Your task to perform on an android device: Open Wikipedia Image 0: 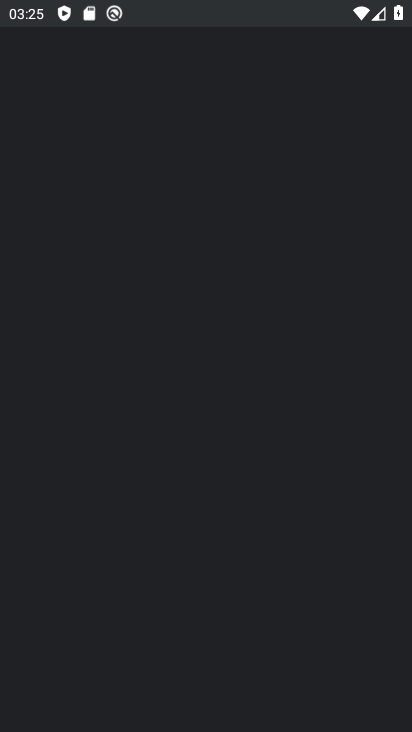
Step 0: drag from (364, 498) to (408, 450)
Your task to perform on an android device: Open Wikipedia Image 1: 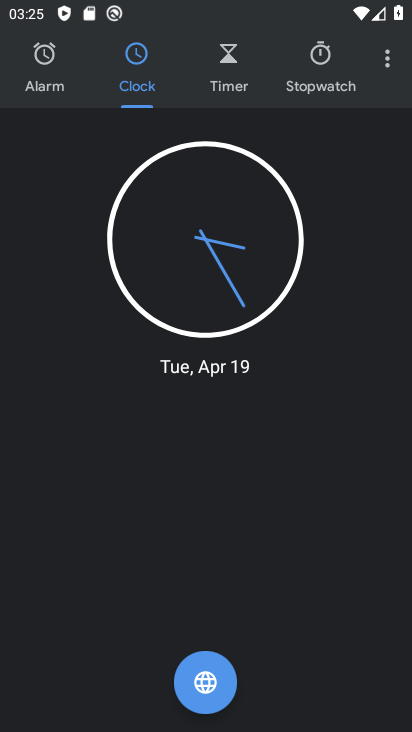
Step 1: press home button
Your task to perform on an android device: Open Wikipedia Image 2: 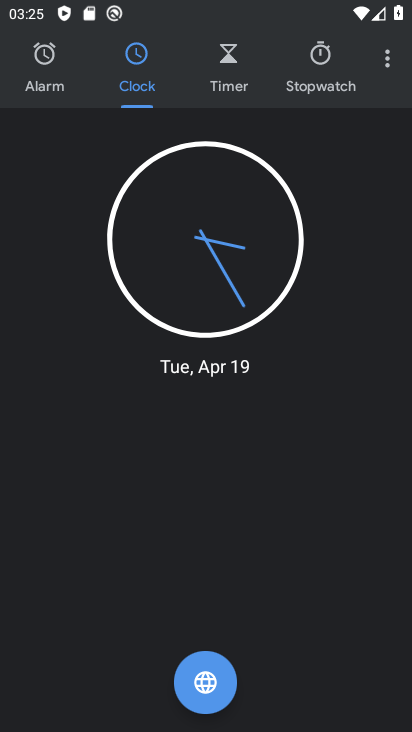
Step 2: drag from (408, 450) to (407, 631)
Your task to perform on an android device: Open Wikipedia Image 3: 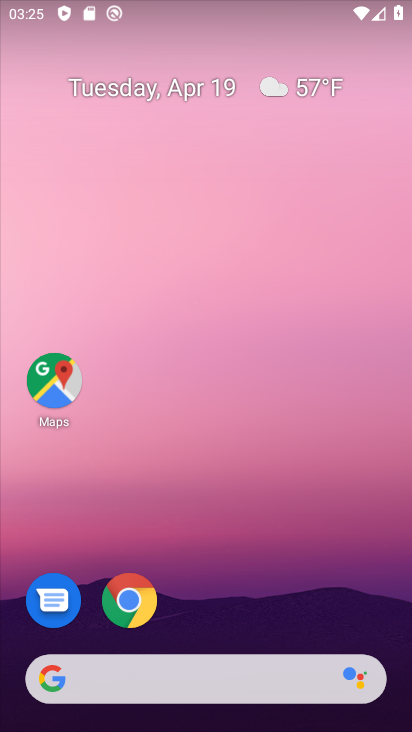
Step 3: drag from (304, 616) to (279, 230)
Your task to perform on an android device: Open Wikipedia Image 4: 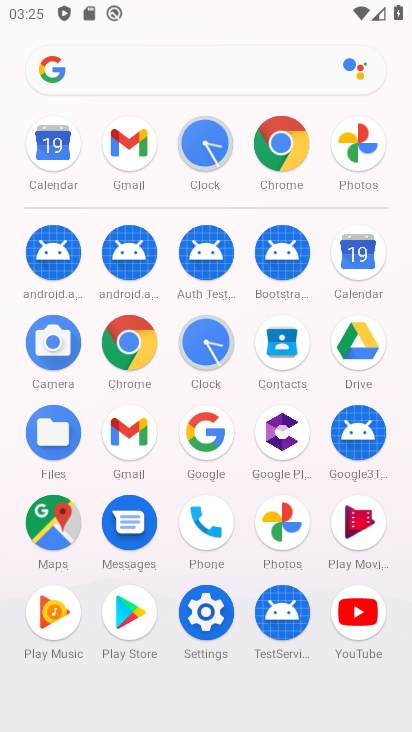
Step 4: click (291, 152)
Your task to perform on an android device: Open Wikipedia Image 5: 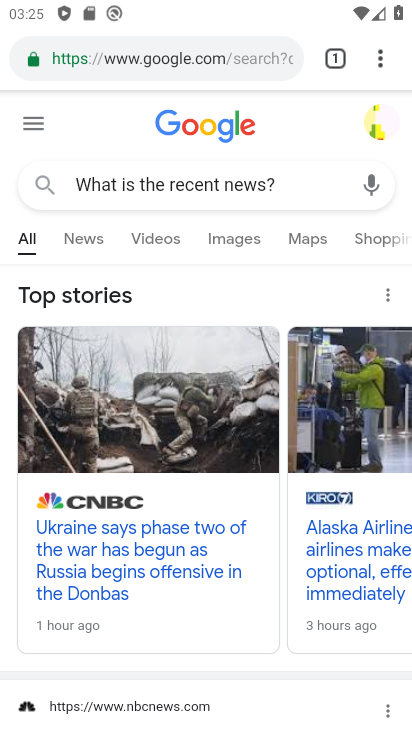
Step 5: click (332, 63)
Your task to perform on an android device: Open Wikipedia Image 6: 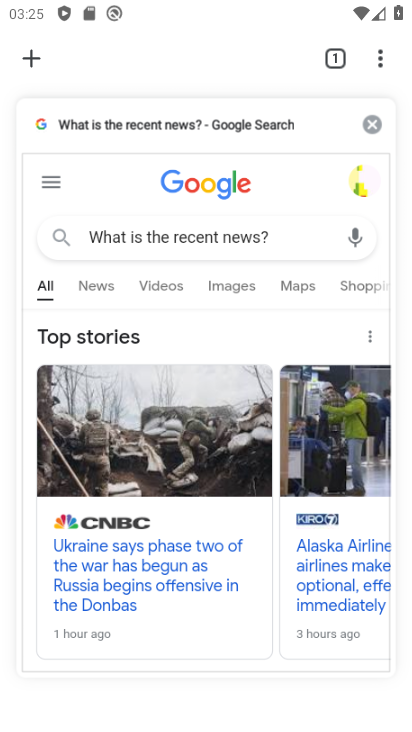
Step 6: click (30, 59)
Your task to perform on an android device: Open Wikipedia Image 7: 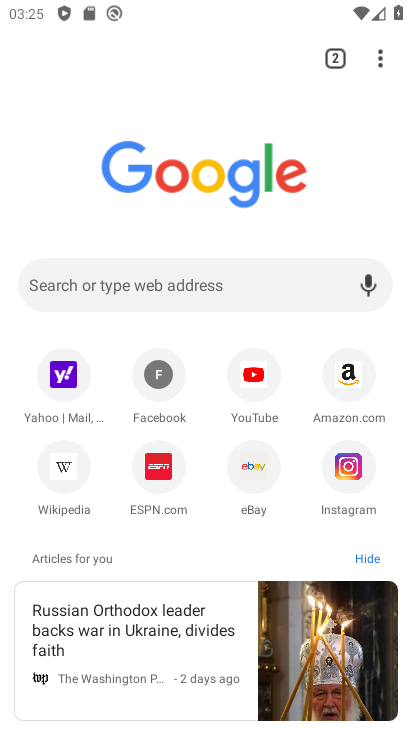
Step 7: click (67, 473)
Your task to perform on an android device: Open Wikipedia Image 8: 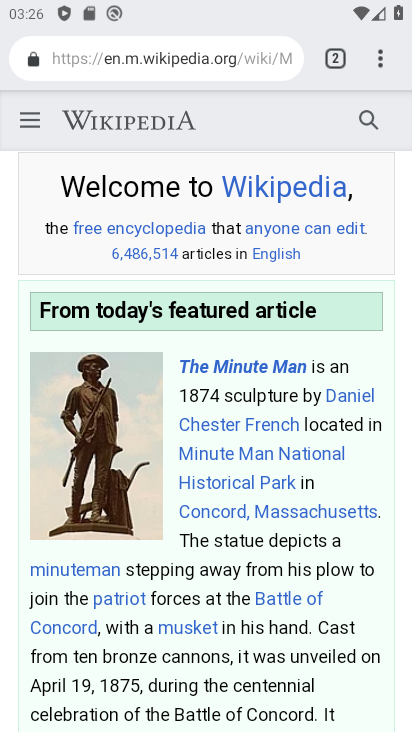
Step 8: task complete